Your task to perform on an android device: change your default location settings in chrome Image 0: 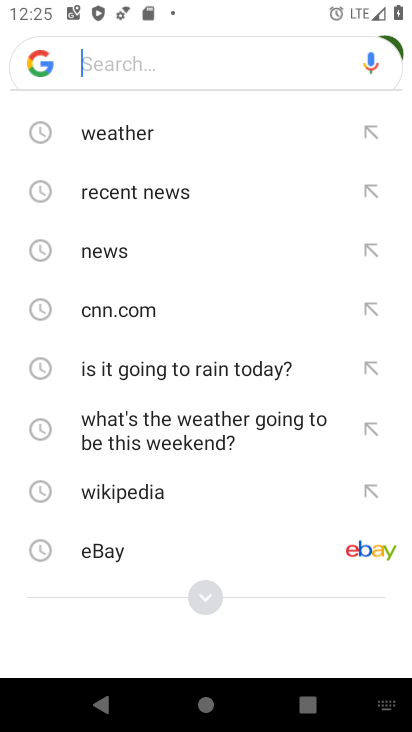
Step 0: press home button
Your task to perform on an android device: change your default location settings in chrome Image 1: 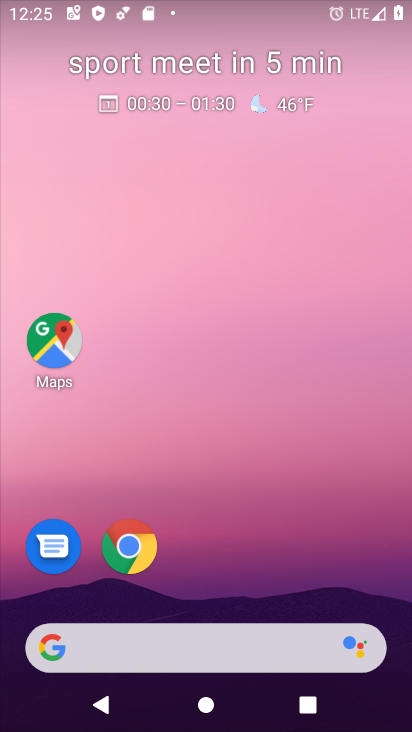
Step 1: click (131, 549)
Your task to perform on an android device: change your default location settings in chrome Image 2: 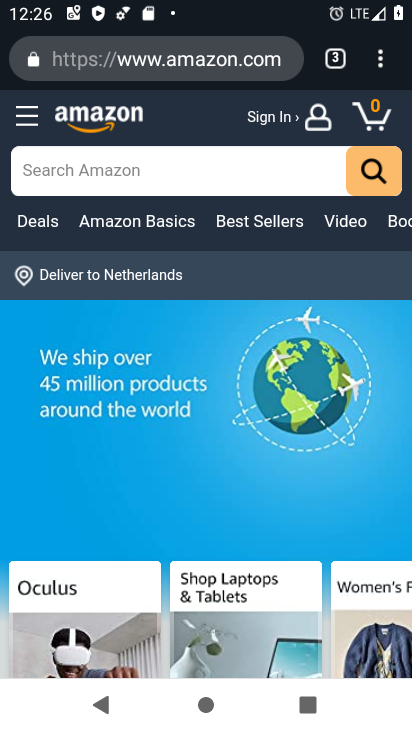
Step 2: drag from (382, 60) to (195, 580)
Your task to perform on an android device: change your default location settings in chrome Image 3: 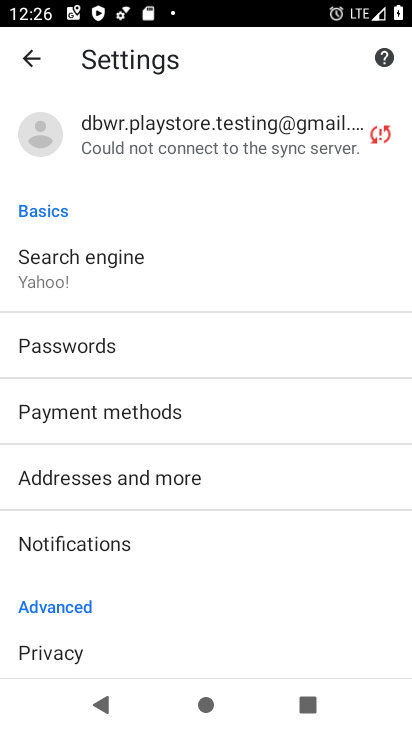
Step 3: drag from (162, 549) to (167, 305)
Your task to perform on an android device: change your default location settings in chrome Image 4: 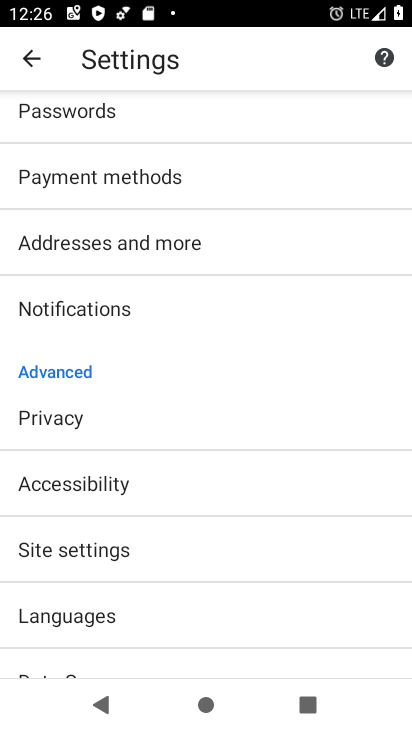
Step 4: click (117, 557)
Your task to perform on an android device: change your default location settings in chrome Image 5: 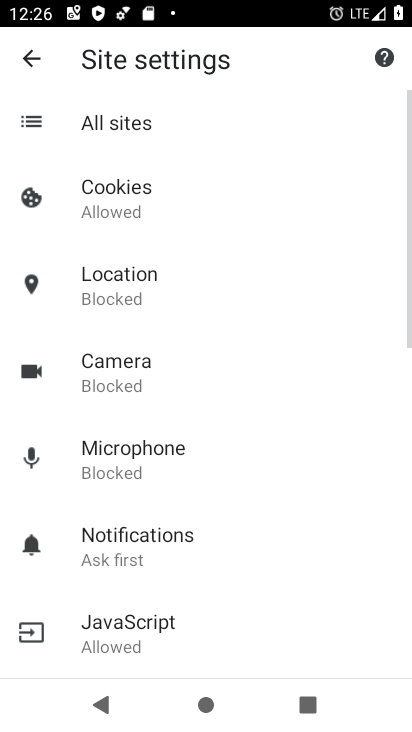
Step 5: click (128, 304)
Your task to perform on an android device: change your default location settings in chrome Image 6: 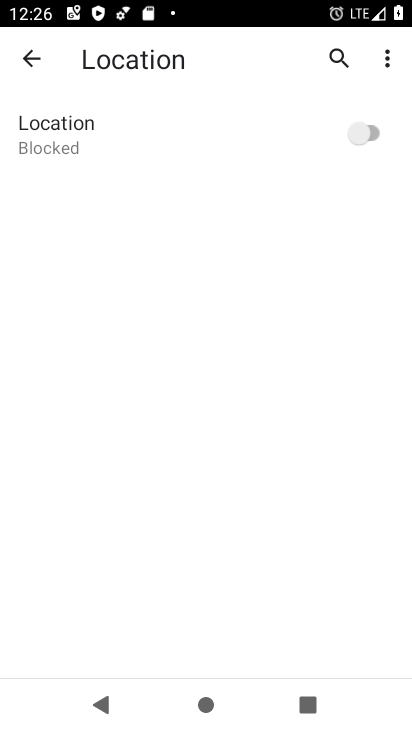
Step 6: click (359, 134)
Your task to perform on an android device: change your default location settings in chrome Image 7: 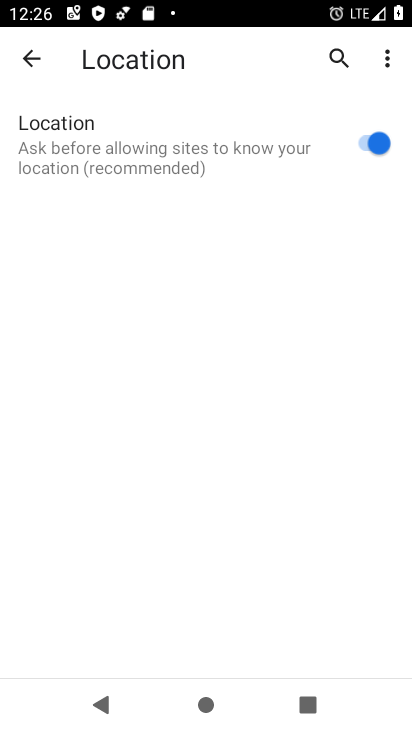
Step 7: task complete